Your task to perform on an android device: toggle airplane mode Image 0: 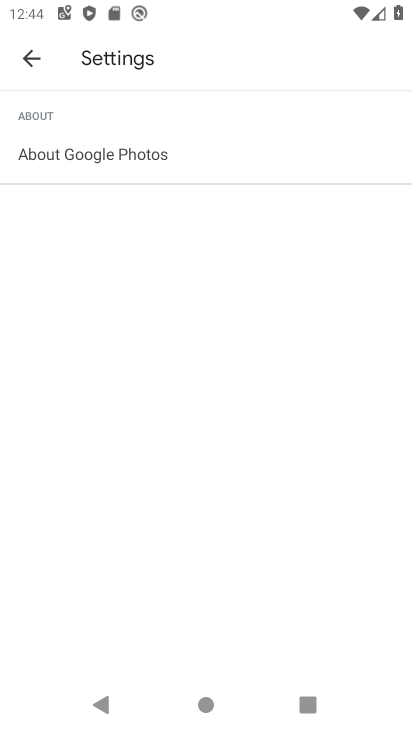
Step 0: press home button
Your task to perform on an android device: toggle airplane mode Image 1: 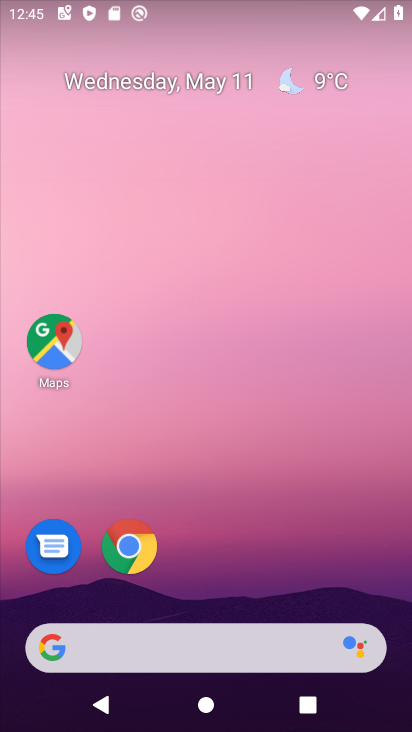
Step 1: drag from (238, 676) to (250, 121)
Your task to perform on an android device: toggle airplane mode Image 2: 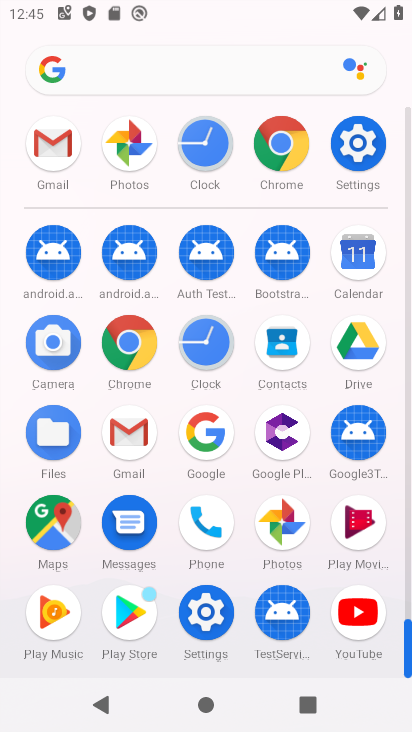
Step 2: click (350, 141)
Your task to perform on an android device: toggle airplane mode Image 3: 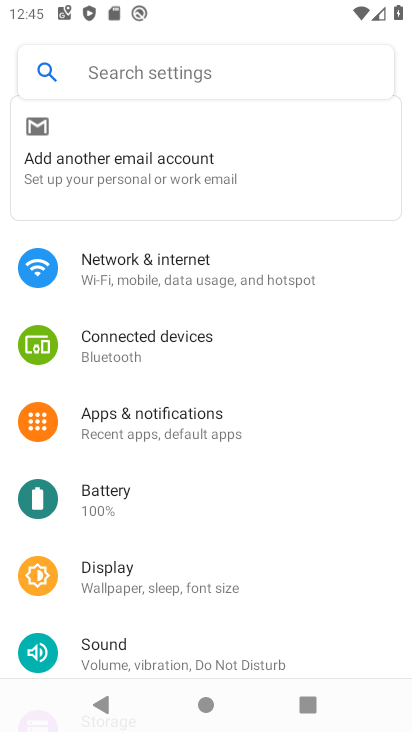
Step 3: click (262, 261)
Your task to perform on an android device: toggle airplane mode Image 4: 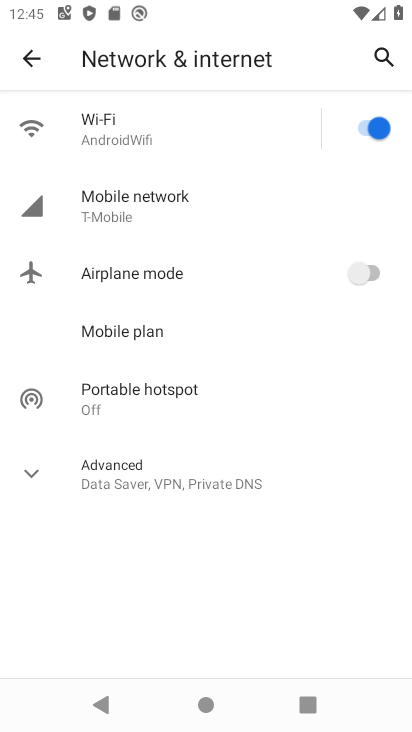
Step 4: click (373, 277)
Your task to perform on an android device: toggle airplane mode Image 5: 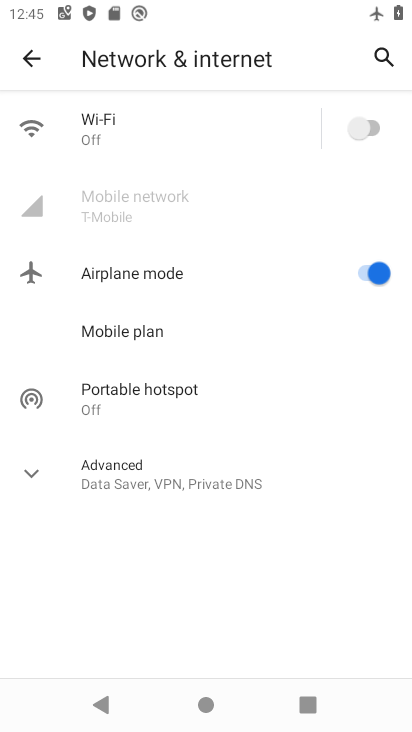
Step 5: task complete